Your task to perform on an android device: Open battery settings Image 0: 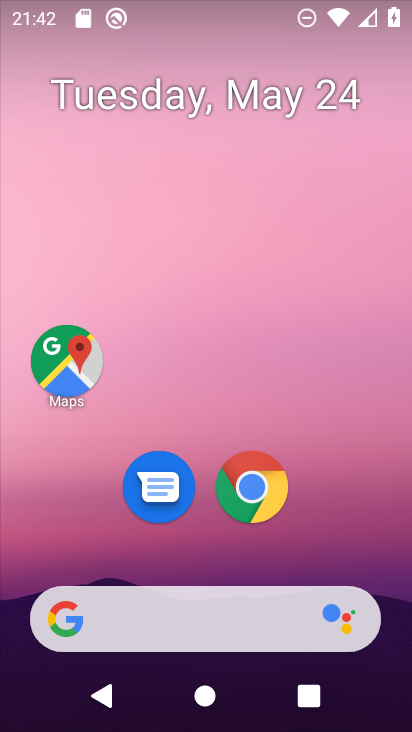
Step 0: drag from (169, 634) to (323, 58)
Your task to perform on an android device: Open battery settings Image 1: 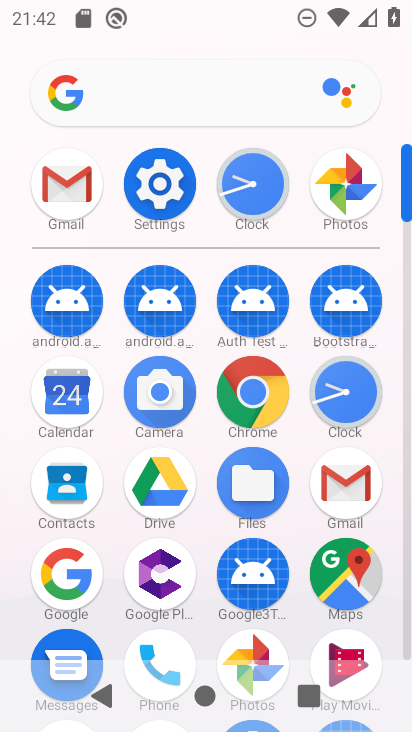
Step 1: click (164, 192)
Your task to perform on an android device: Open battery settings Image 2: 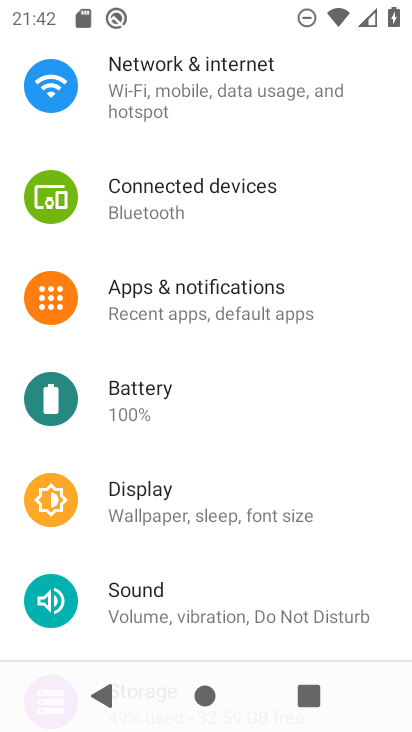
Step 2: drag from (215, 452) to (316, 17)
Your task to perform on an android device: Open battery settings Image 3: 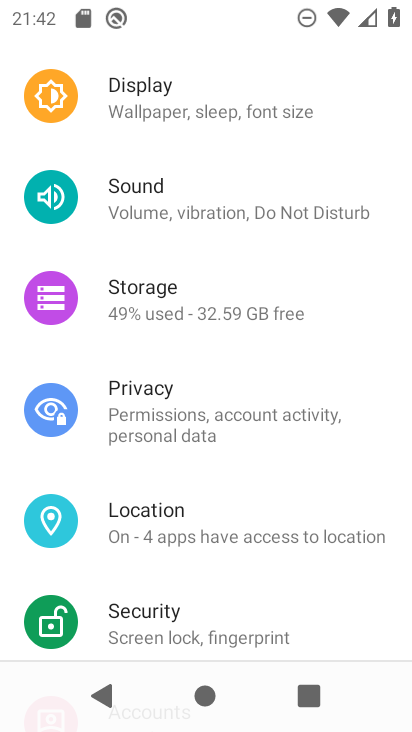
Step 3: drag from (234, 481) to (205, 583)
Your task to perform on an android device: Open battery settings Image 4: 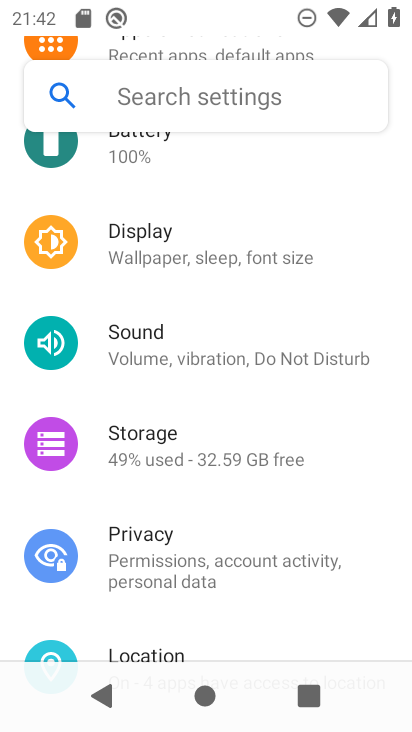
Step 4: drag from (276, 189) to (161, 634)
Your task to perform on an android device: Open battery settings Image 5: 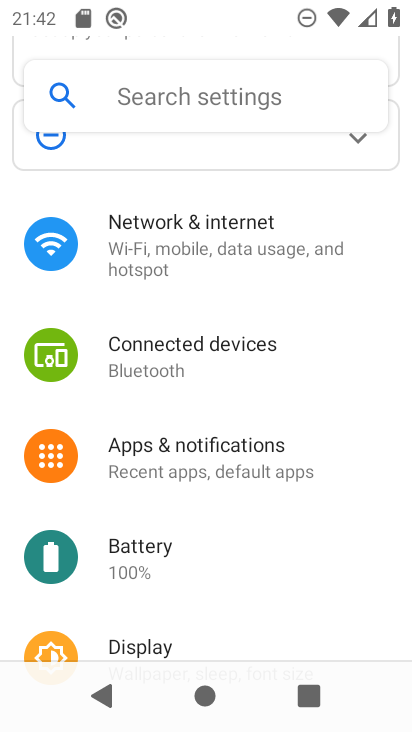
Step 5: click (141, 553)
Your task to perform on an android device: Open battery settings Image 6: 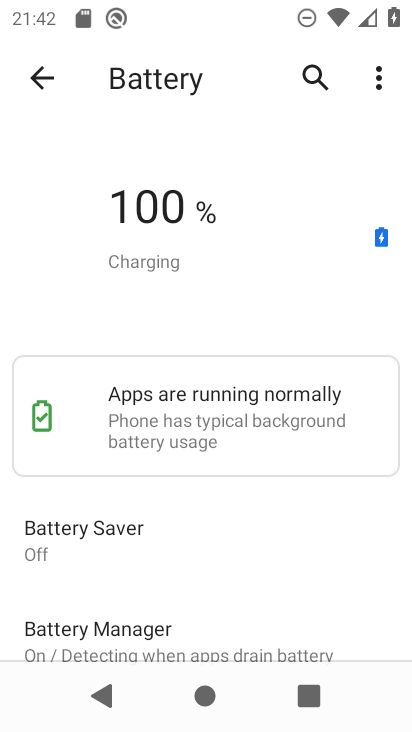
Step 6: task complete